Your task to perform on an android device: turn off sleep mode Image 0: 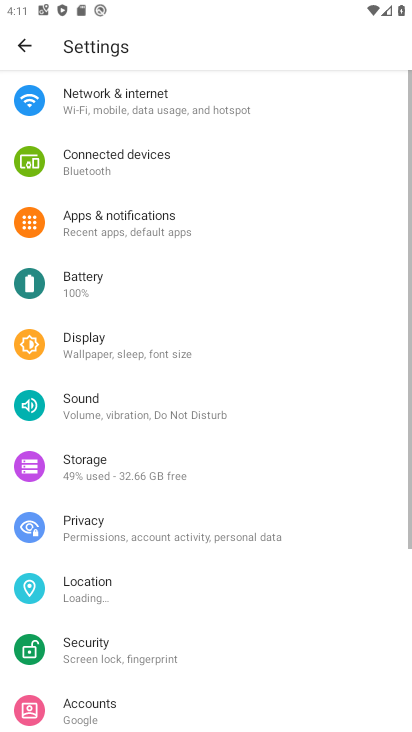
Step 0: press home button
Your task to perform on an android device: turn off sleep mode Image 1: 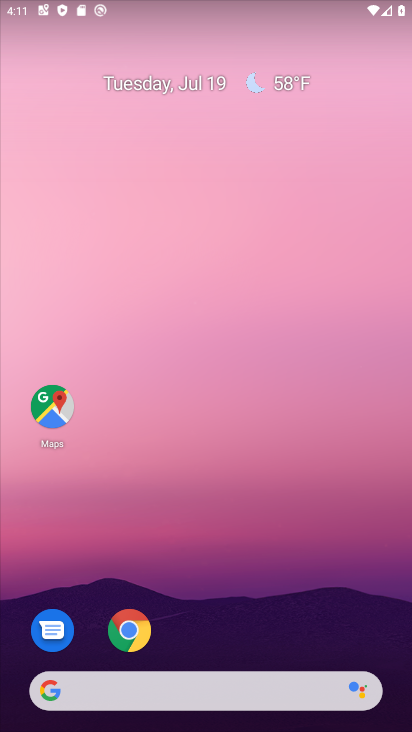
Step 1: drag from (191, 632) to (265, 218)
Your task to perform on an android device: turn off sleep mode Image 2: 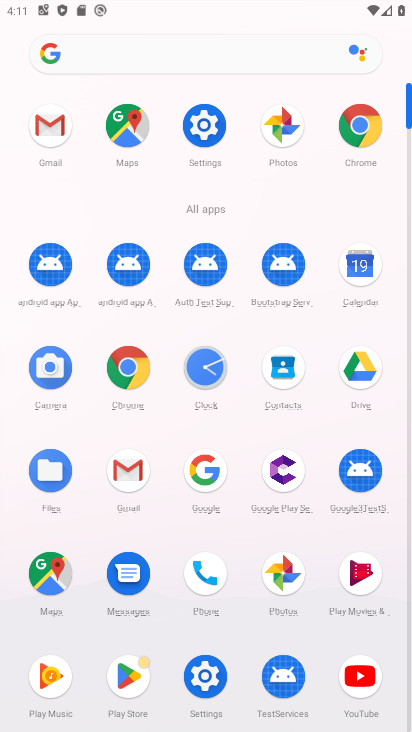
Step 2: click (206, 672)
Your task to perform on an android device: turn off sleep mode Image 3: 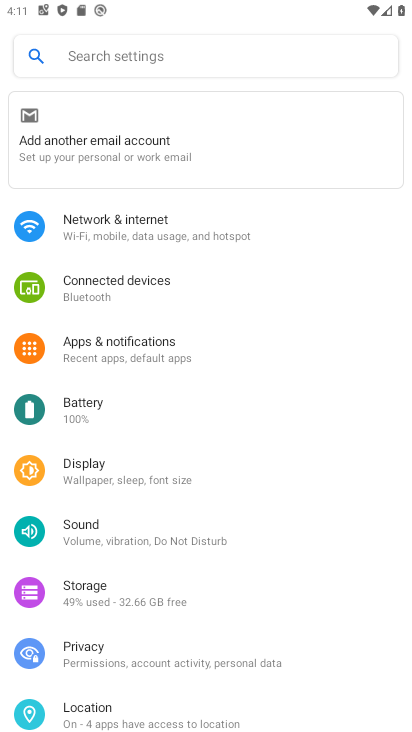
Step 3: click (95, 472)
Your task to perform on an android device: turn off sleep mode Image 4: 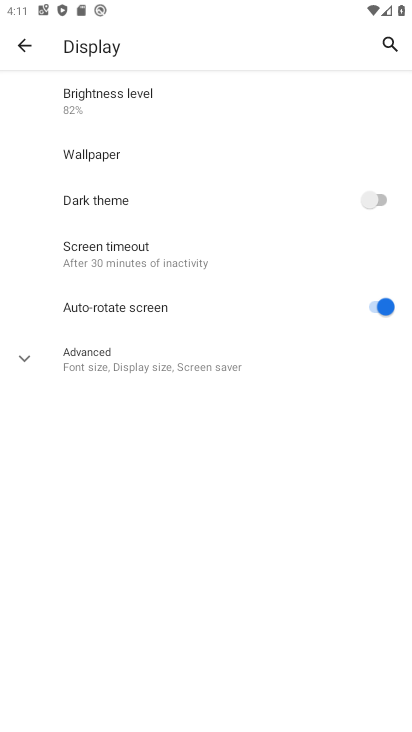
Step 4: click (163, 360)
Your task to perform on an android device: turn off sleep mode Image 5: 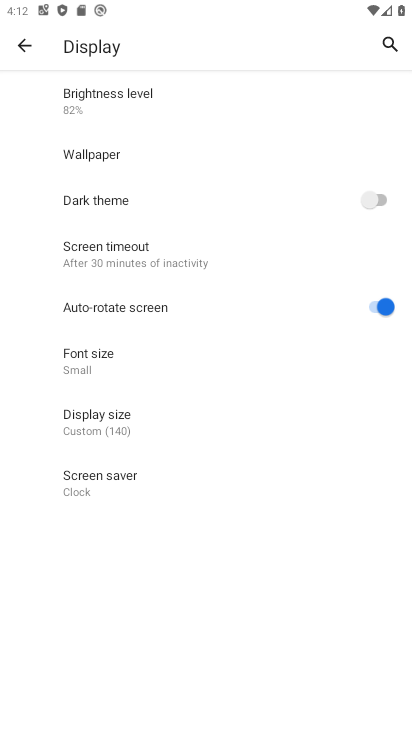
Step 5: task complete